Your task to perform on an android device: Search for flights from NYC to Chicago Image 0: 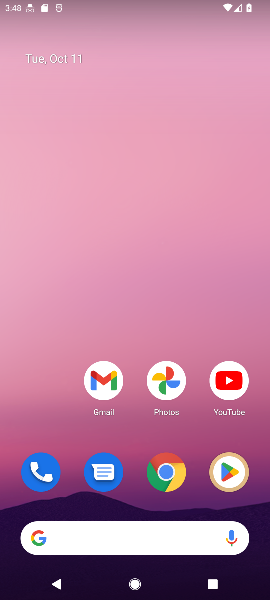
Step 0: click (178, 469)
Your task to perform on an android device: Search for flights from NYC to Chicago Image 1: 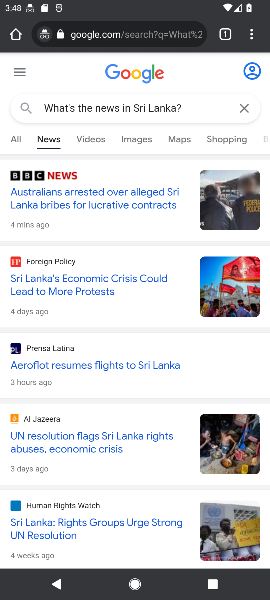
Step 1: click (109, 43)
Your task to perform on an android device: Search for flights from NYC to Chicago Image 2: 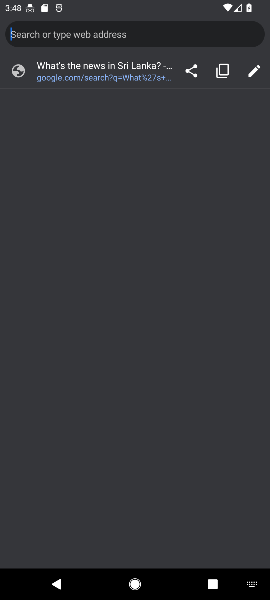
Step 2: type "flights from NYC to Chicago"
Your task to perform on an android device: Search for flights from NYC to Chicago Image 3: 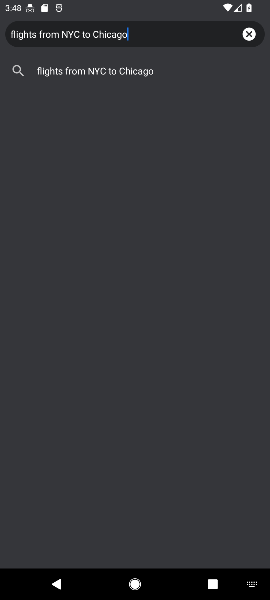
Step 3: click (74, 71)
Your task to perform on an android device: Search for flights from NYC to Chicago Image 4: 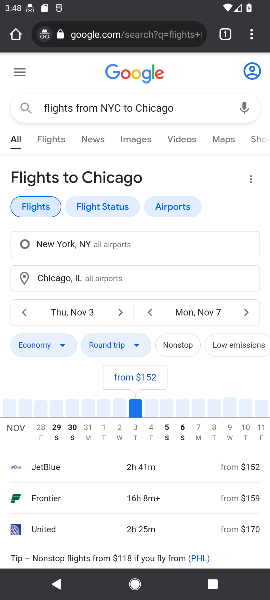
Step 4: click (43, 132)
Your task to perform on an android device: Search for flights from NYC to Chicago Image 5: 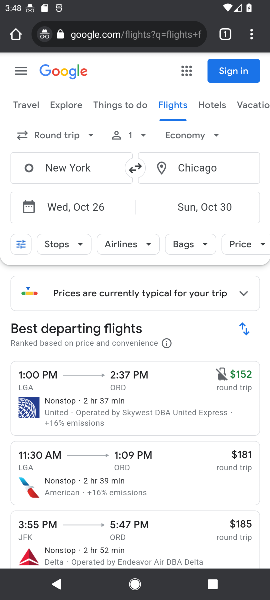
Step 5: task complete